Your task to perform on an android device: delete a single message in the gmail app Image 0: 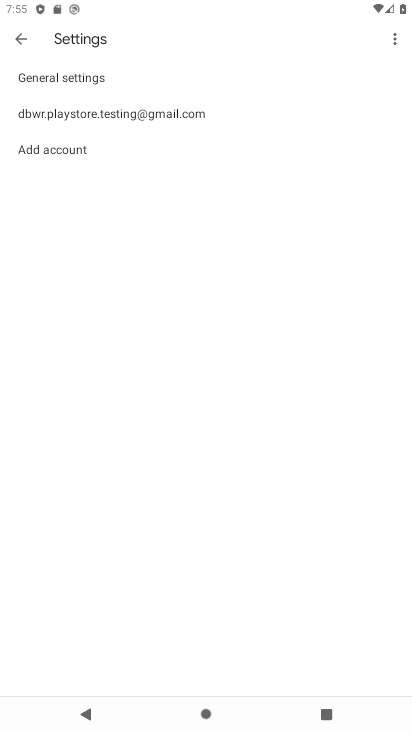
Step 0: press home button
Your task to perform on an android device: delete a single message in the gmail app Image 1: 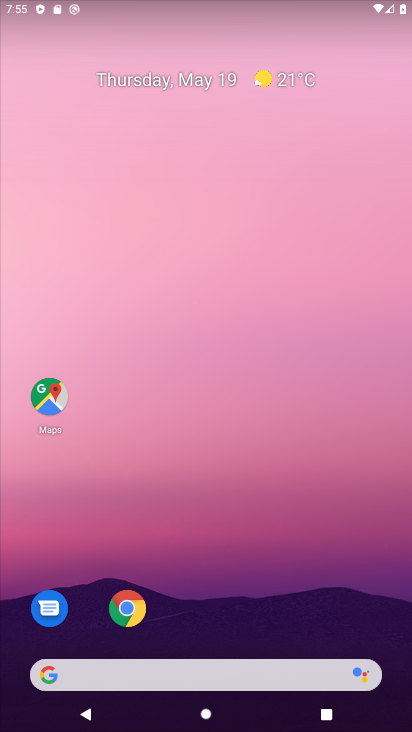
Step 1: drag from (282, 538) to (212, 160)
Your task to perform on an android device: delete a single message in the gmail app Image 2: 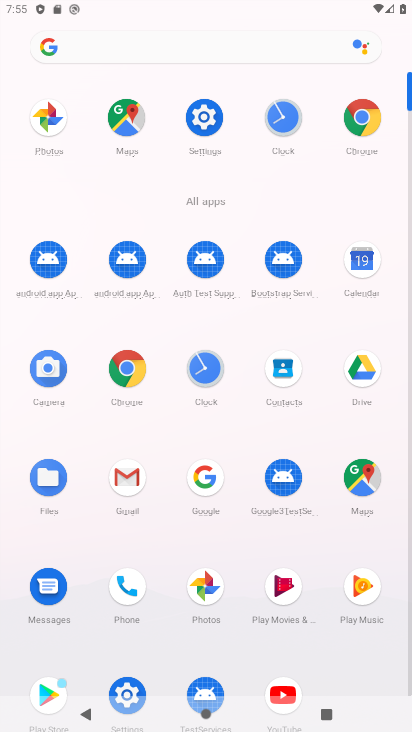
Step 2: click (125, 477)
Your task to perform on an android device: delete a single message in the gmail app Image 3: 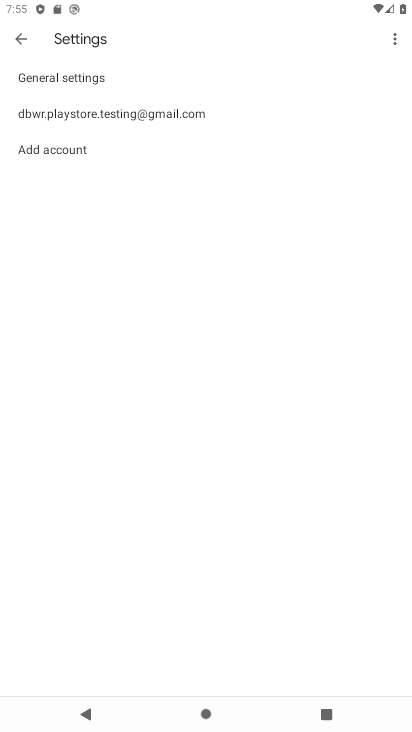
Step 3: click (21, 37)
Your task to perform on an android device: delete a single message in the gmail app Image 4: 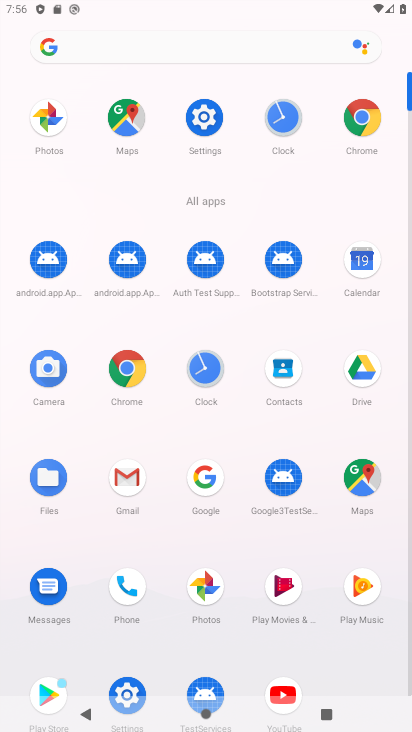
Step 4: click (130, 475)
Your task to perform on an android device: delete a single message in the gmail app Image 5: 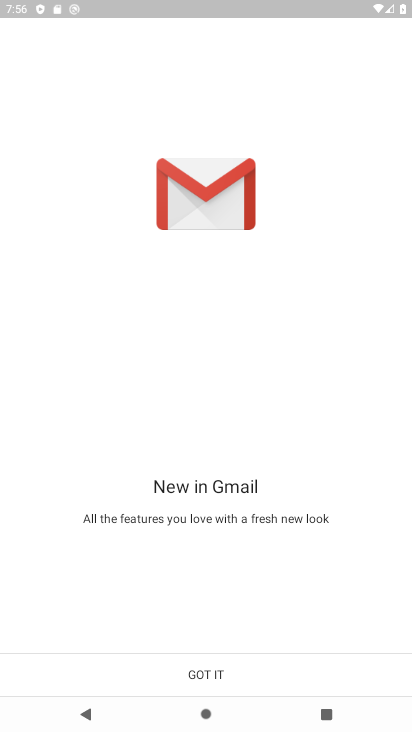
Step 5: click (210, 675)
Your task to perform on an android device: delete a single message in the gmail app Image 6: 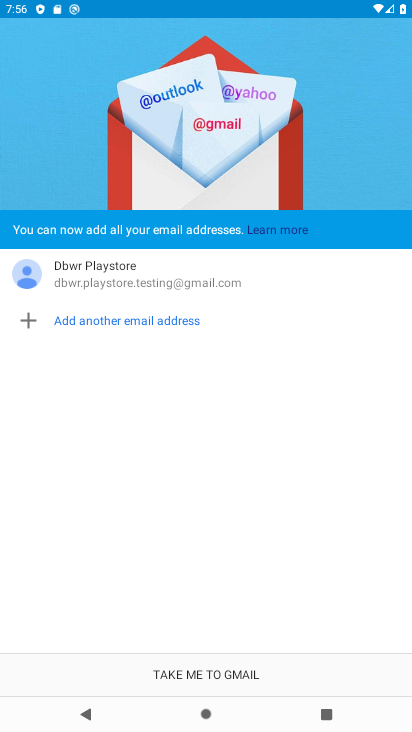
Step 6: click (208, 673)
Your task to perform on an android device: delete a single message in the gmail app Image 7: 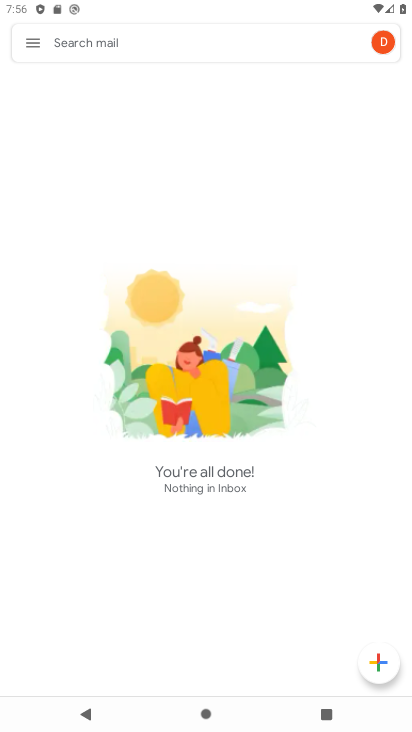
Step 7: click (34, 37)
Your task to perform on an android device: delete a single message in the gmail app Image 8: 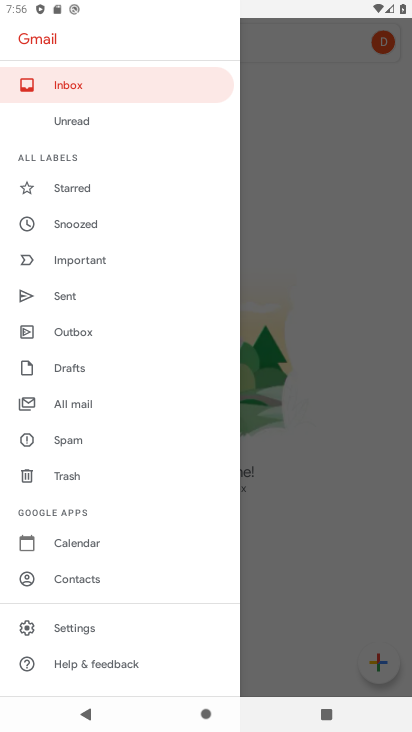
Step 8: click (78, 400)
Your task to perform on an android device: delete a single message in the gmail app Image 9: 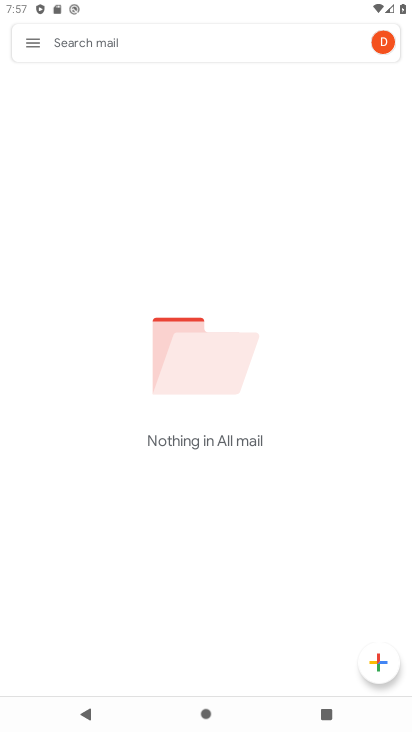
Step 9: task complete